Your task to perform on an android device: Show me recent news Image 0: 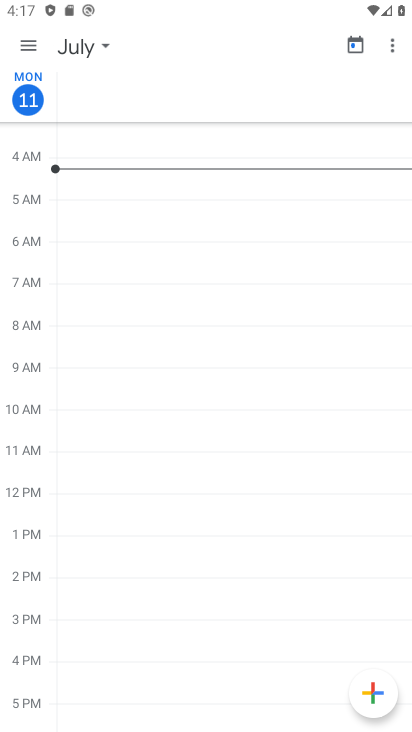
Step 0: press home button
Your task to perform on an android device: Show me recent news Image 1: 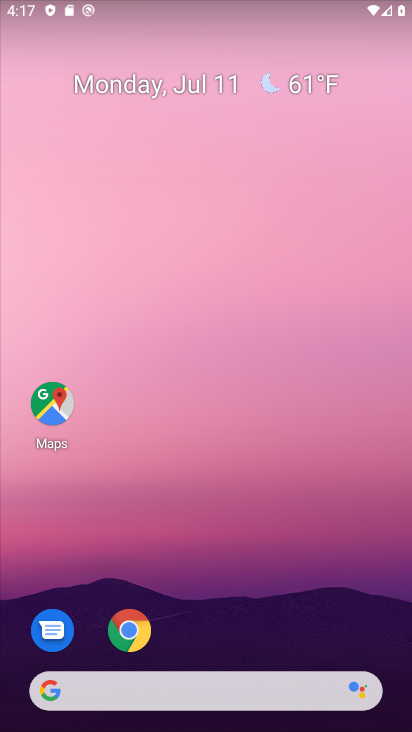
Step 1: drag from (259, 546) to (18, 68)
Your task to perform on an android device: Show me recent news Image 2: 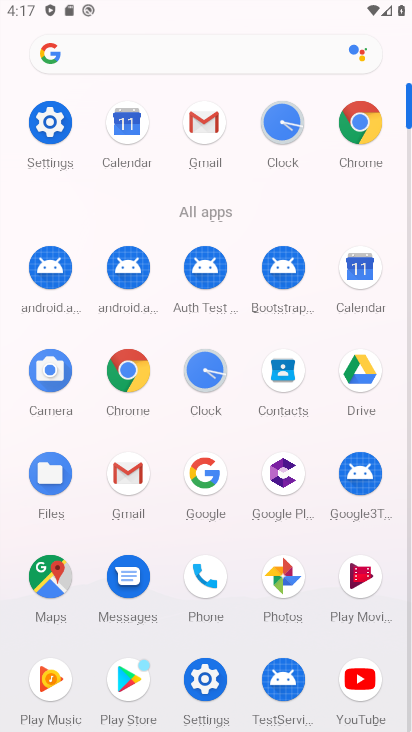
Step 2: click (356, 114)
Your task to perform on an android device: Show me recent news Image 3: 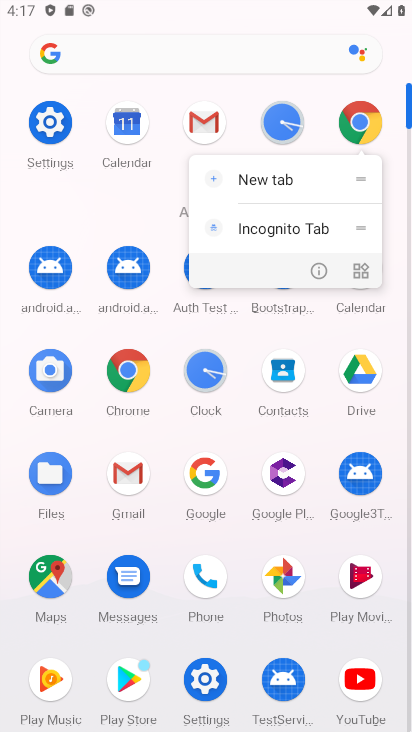
Step 3: click (356, 115)
Your task to perform on an android device: Show me recent news Image 4: 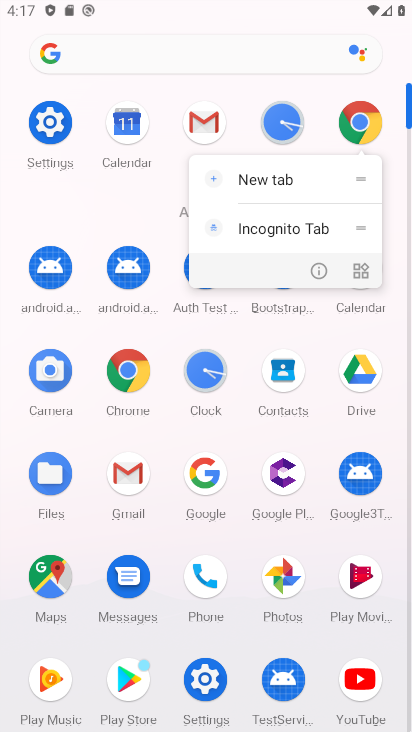
Step 4: click (353, 134)
Your task to perform on an android device: Show me recent news Image 5: 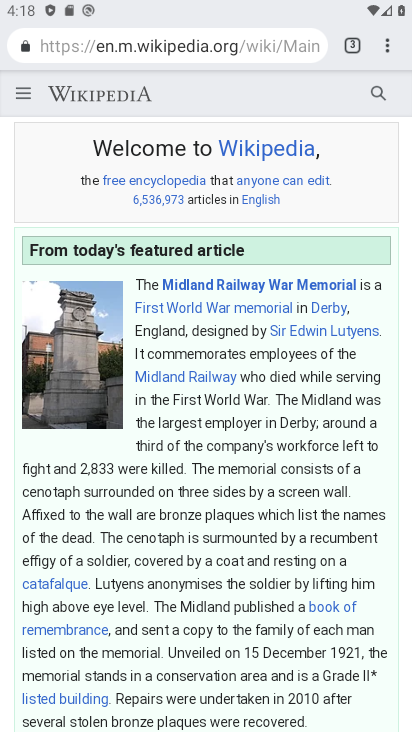
Step 5: task complete